Your task to perform on an android device: Go to internet settings Image 0: 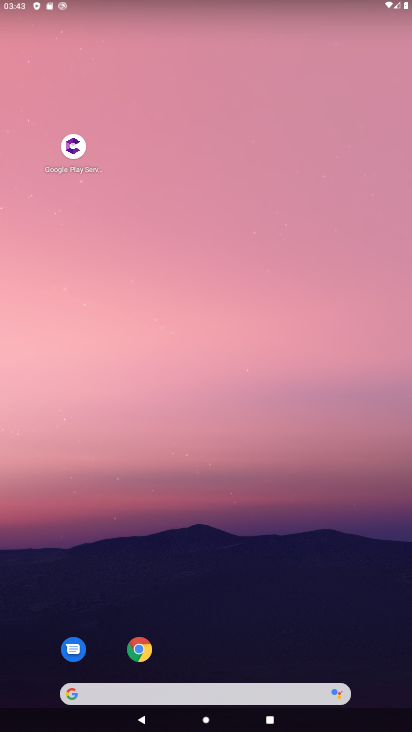
Step 0: drag from (199, 695) to (335, 128)
Your task to perform on an android device: Go to internet settings Image 1: 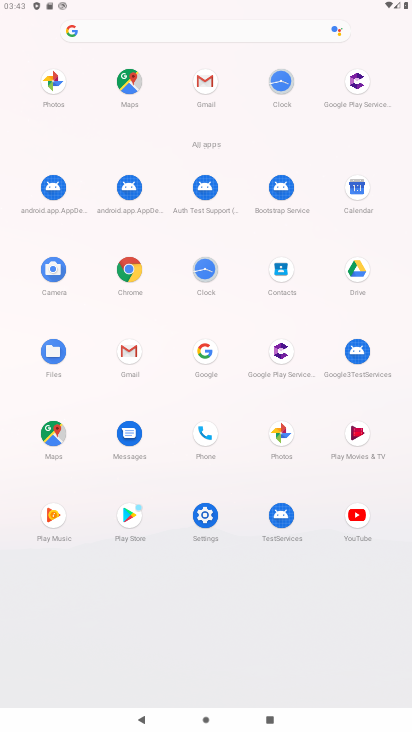
Step 1: click (206, 513)
Your task to perform on an android device: Go to internet settings Image 2: 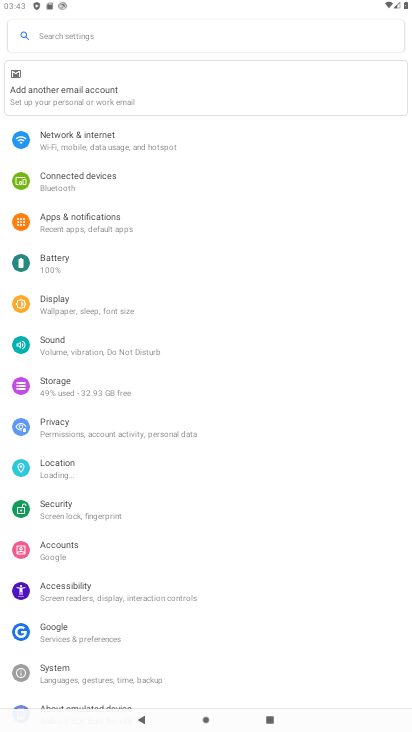
Step 2: click (71, 143)
Your task to perform on an android device: Go to internet settings Image 3: 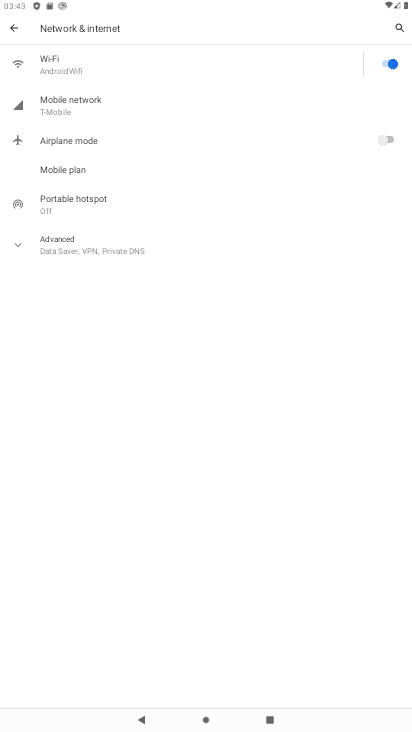
Step 3: task complete